Your task to perform on an android device: turn off wifi Image 0: 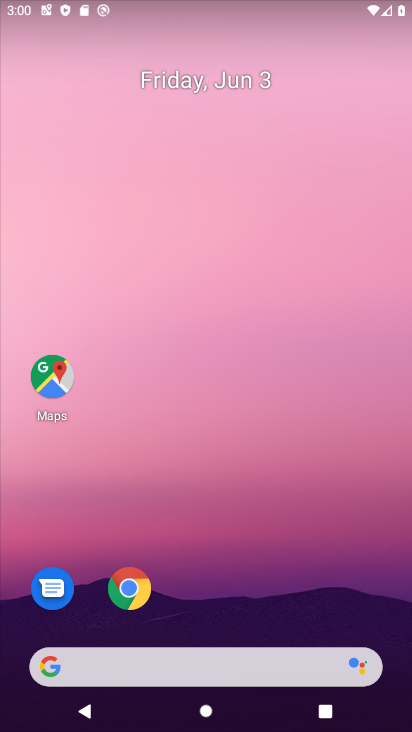
Step 0: drag from (203, 44) to (131, 491)
Your task to perform on an android device: turn off wifi Image 1: 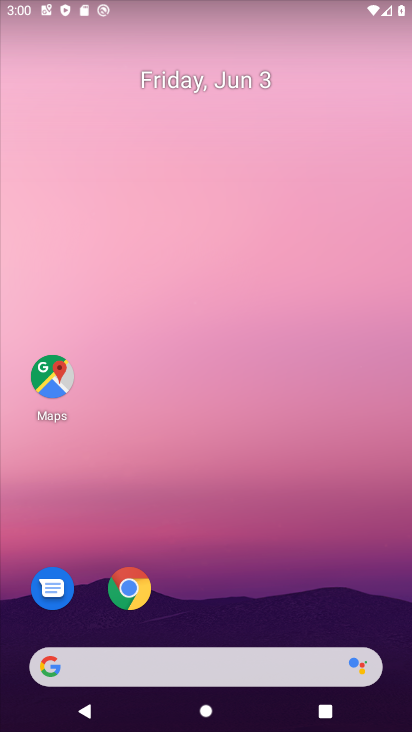
Step 1: drag from (97, 4) to (39, 575)
Your task to perform on an android device: turn off wifi Image 2: 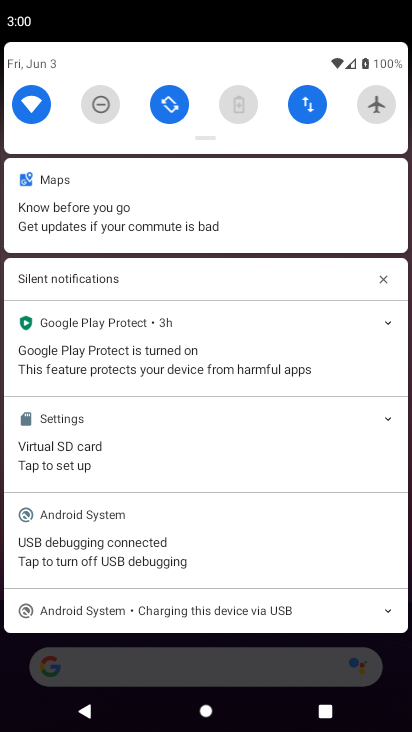
Step 2: click (21, 117)
Your task to perform on an android device: turn off wifi Image 3: 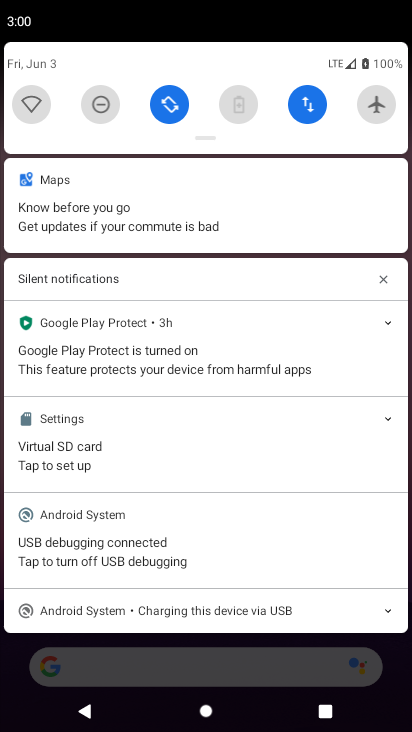
Step 3: task complete